Your task to perform on an android device: open the mobile data screen to see how much data has been used Image 0: 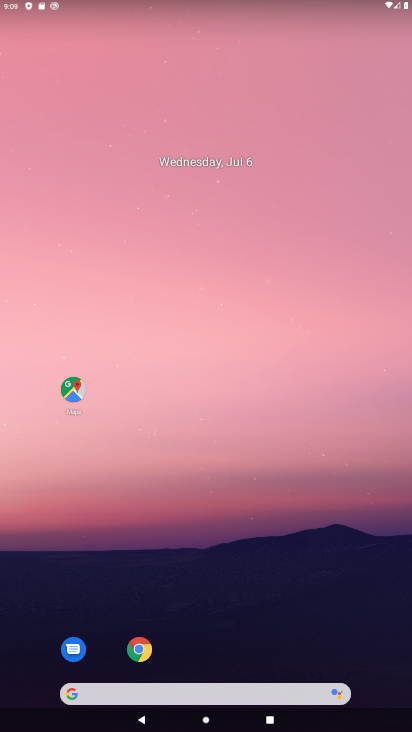
Step 0: drag from (229, 658) to (188, 41)
Your task to perform on an android device: open the mobile data screen to see how much data has been used Image 1: 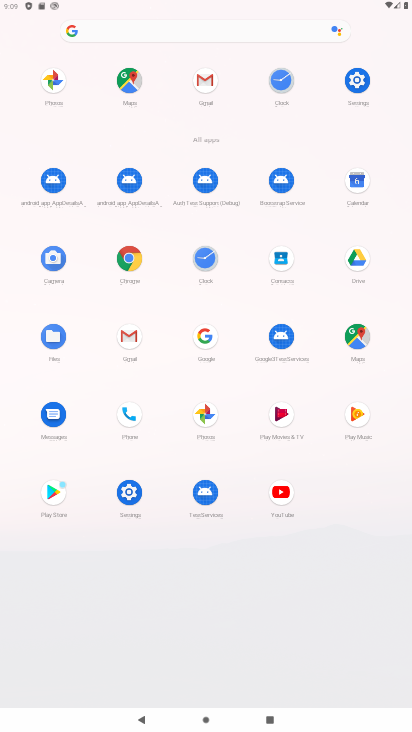
Step 1: click (362, 71)
Your task to perform on an android device: open the mobile data screen to see how much data has been used Image 2: 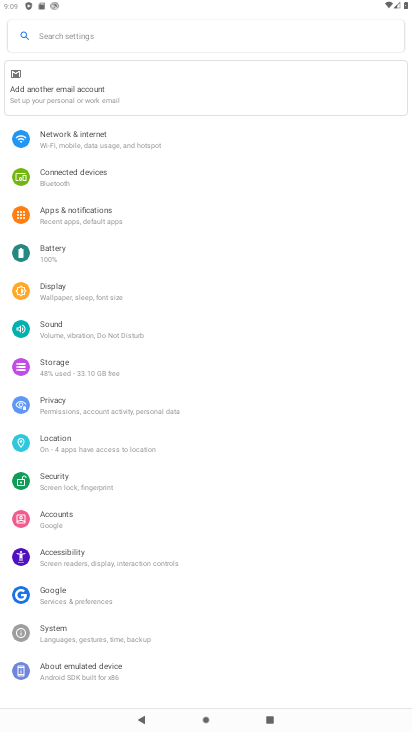
Step 2: click (93, 140)
Your task to perform on an android device: open the mobile data screen to see how much data has been used Image 3: 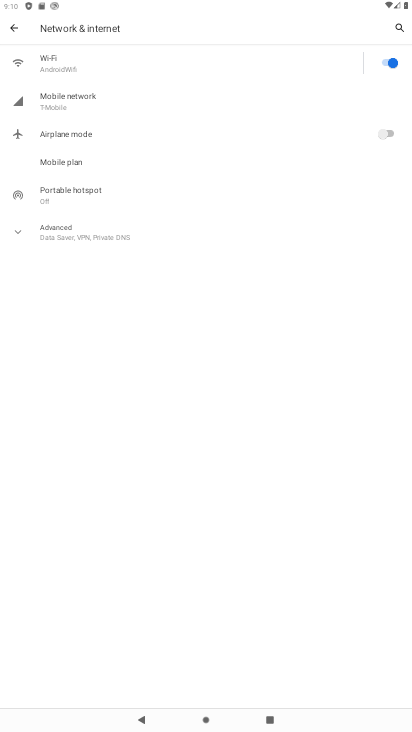
Step 3: click (67, 101)
Your task to perform on an android device: open the mobile data screen to see how much data has been used Image 4: 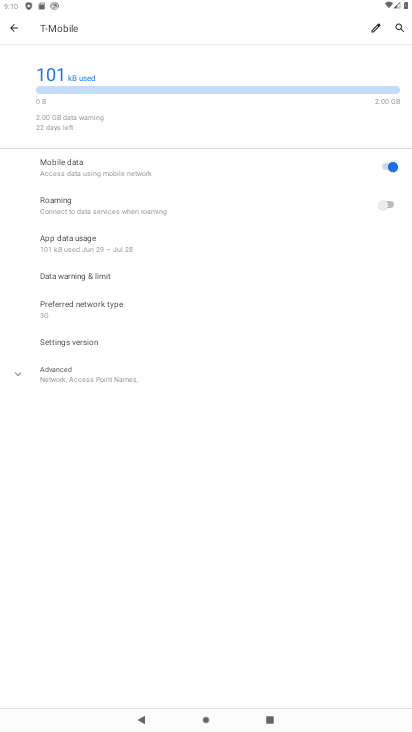
Step 4: click (92, 248)
Your task to perform on an android device: open the mobile data screen to see how much data has been used Image 5: 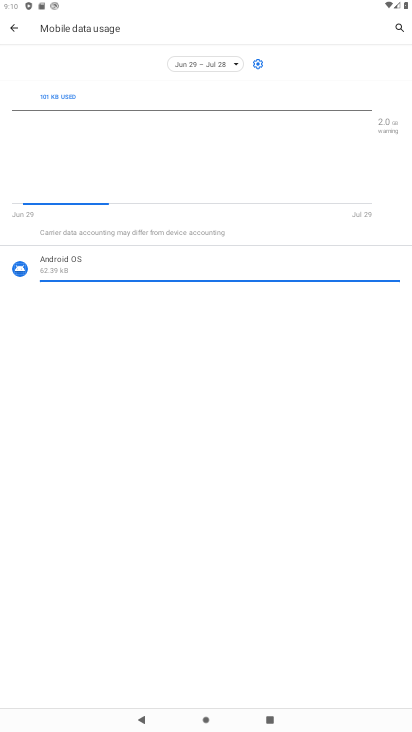
Step 5: task complete